Your task to perform on an android device: Go to Yahoo.com Image 0: 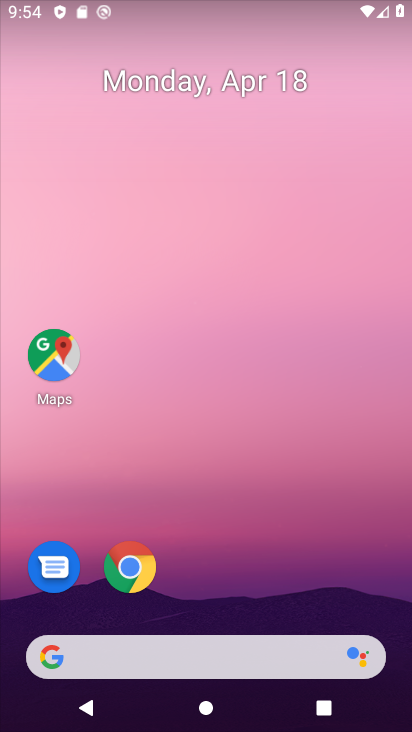
Step 0: click (128, 573)
Your task to perform on an android device: Go to Yahoo.com Image 1: 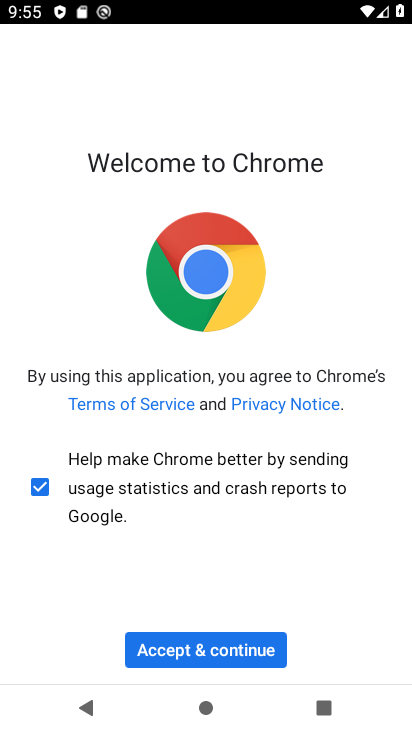
Step 1: click (169, 639)
Your task to perform on an android device: Go to Yahoo.com Image 2: 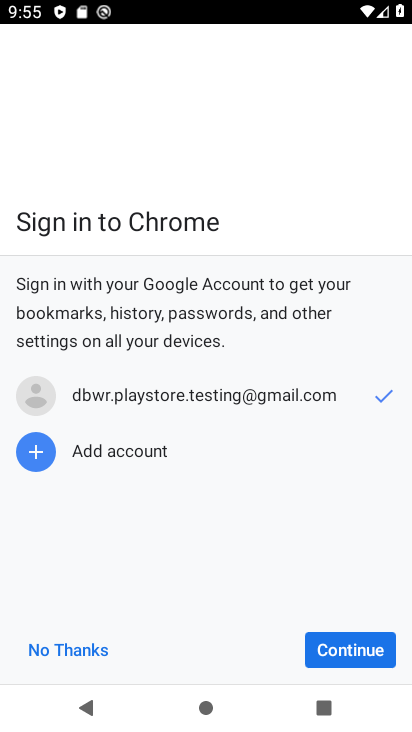
Step 2: click (364, 652)
Your task to perform on an android device: Go to Yahoo.com Image 3: 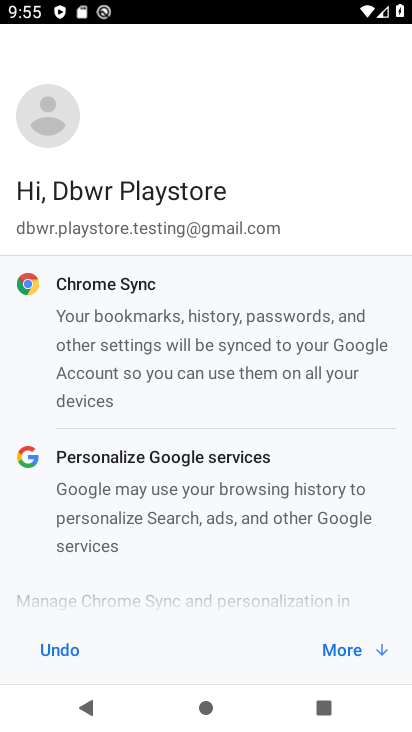
Step 3: click (364, 652)
Your task to perform on an android device: Go to Yahoo.com Image 4: 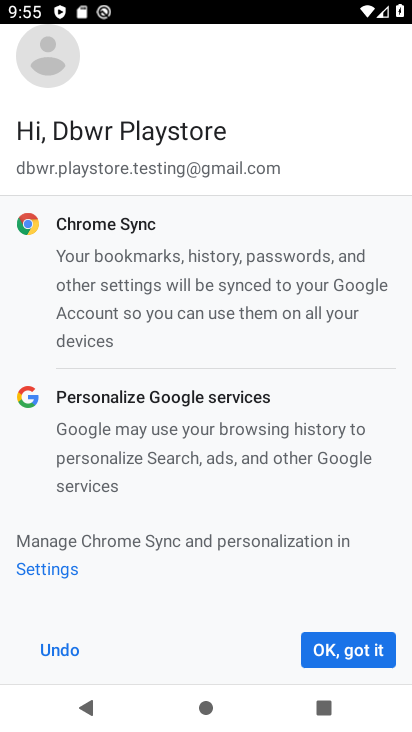
Step 4: click (364, 652)
Your task to perform on an android device: Go to Yahoo.com Image 5: 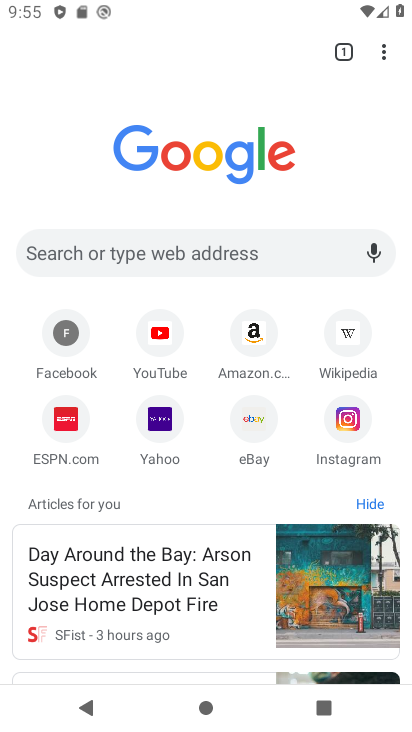
Step 5: click (161, 420)
Your task to perform on an android device: Go to Yahoo.com Image 6: 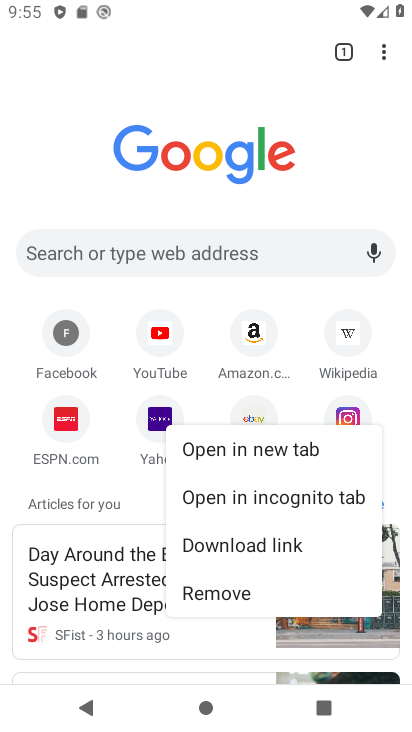
Step 6: click (163, 420)
Your task to perform on an android device: Go to Yahoo.com Image 7: 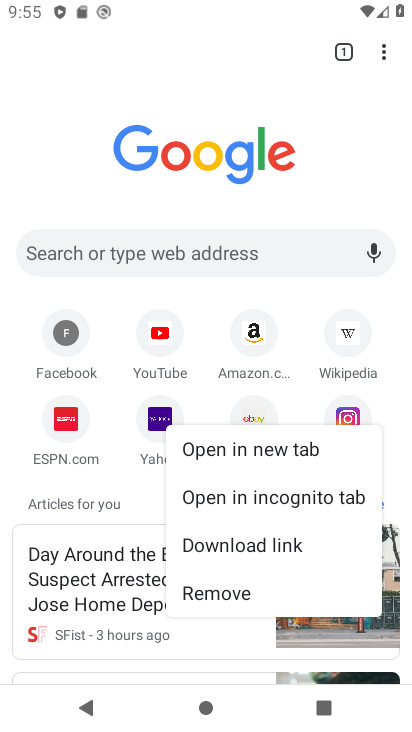
Step 7: click (160, 419)
Your task to perform on an android device: Go to Yahoo.com Image 8: 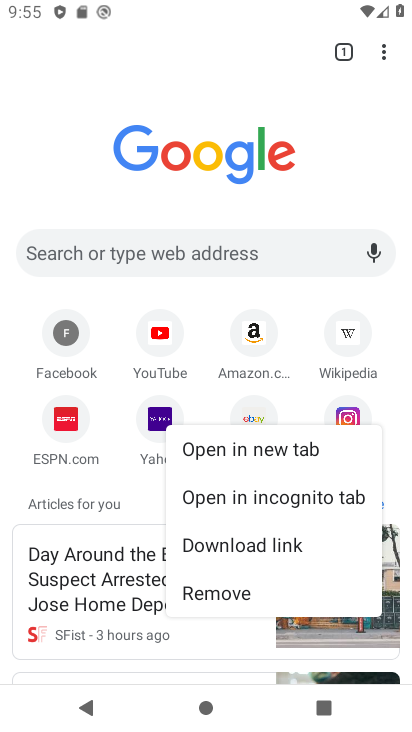
Step 8: click (158, 418)
Your task to perform on an android device: Go to Yahoo.com Image 9: 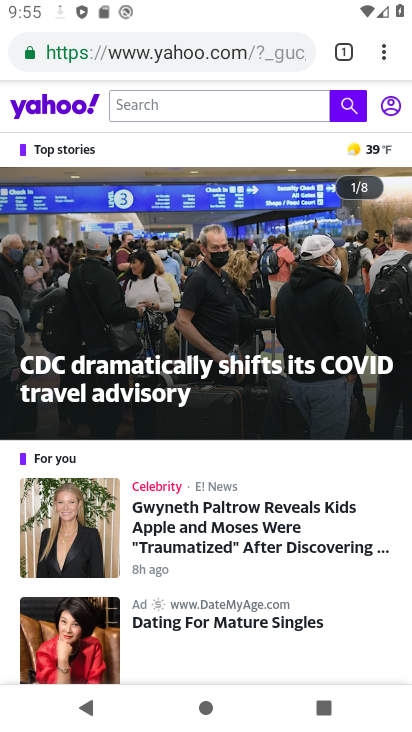
Step 9: task complete